Your task to perform on an android device: add a contact in the contacts app Image 0: 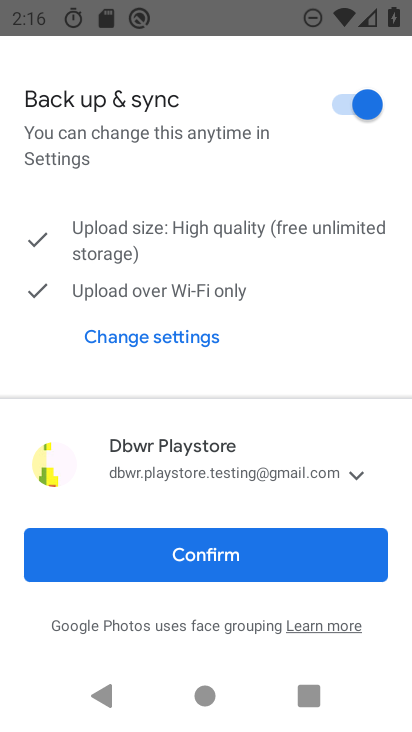
Step 0: press home button
Your task to perform on an android device: add a contact in the contacts app Image 1: 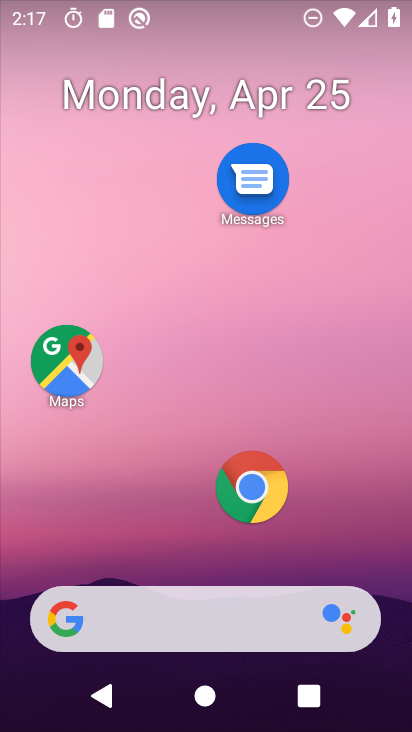
Step 1: drag from (205, 651) to (277, 60)
Your task to perform on an android device: add a contact in the contacts app Image 2: 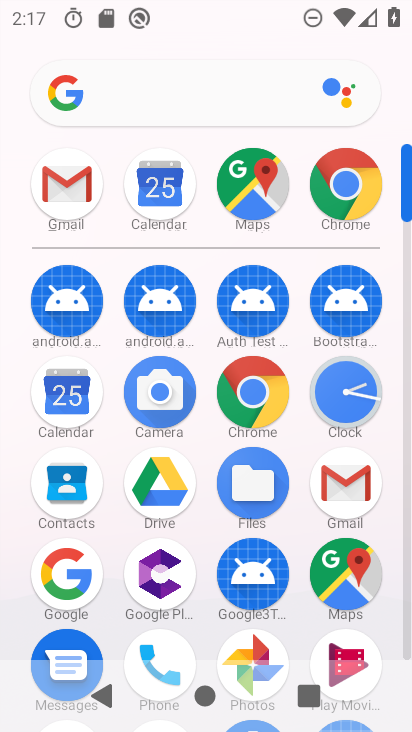
Step 2: click (67, 488)
Your task to perform on an android device: add a contact in the contacts app Image 3: 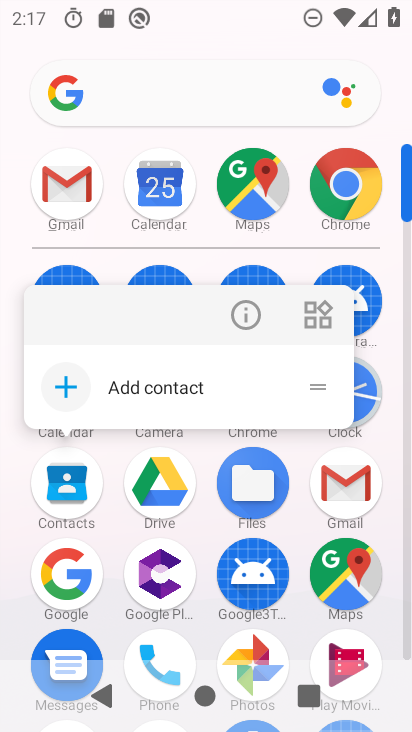
Step 3: click (61, 488)
Your task to perform on an android device: add a contact in the contacts app Image 4: 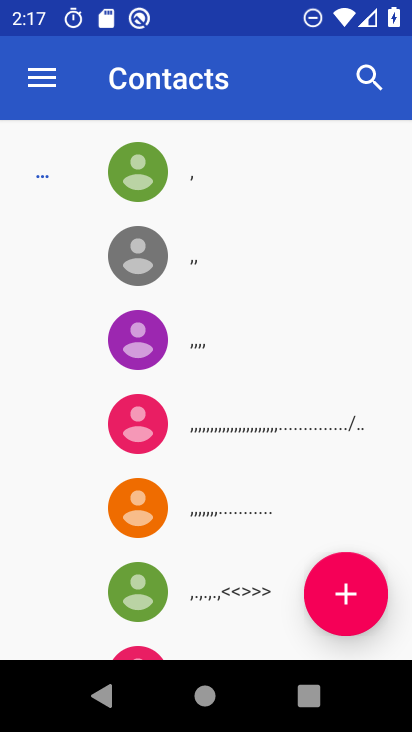
Step 4: click (370, 609)
Your task to perform on an android device: add a contact in the contacts app Image 5: 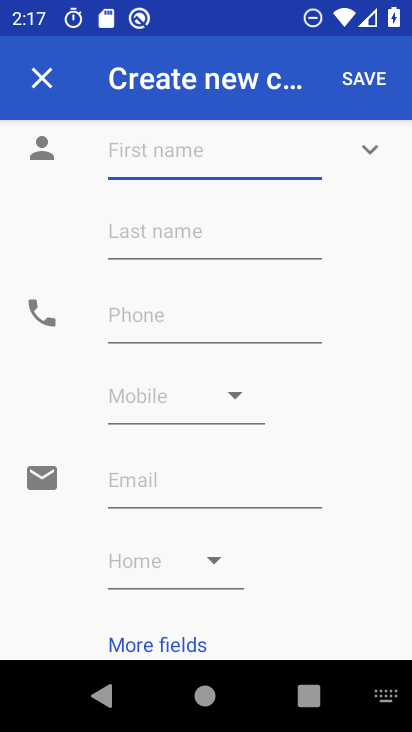
Step 5: type "ssfsdgsdds"
Your task to perform on an android device: add a contact in the contacts app Image 6: 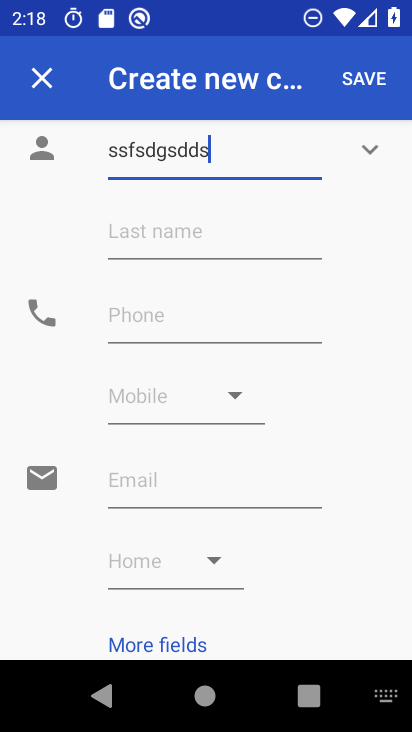
Step 6: click (156, 306)
Your task to perform on an android device: add a contact in the contacts app Image 7: 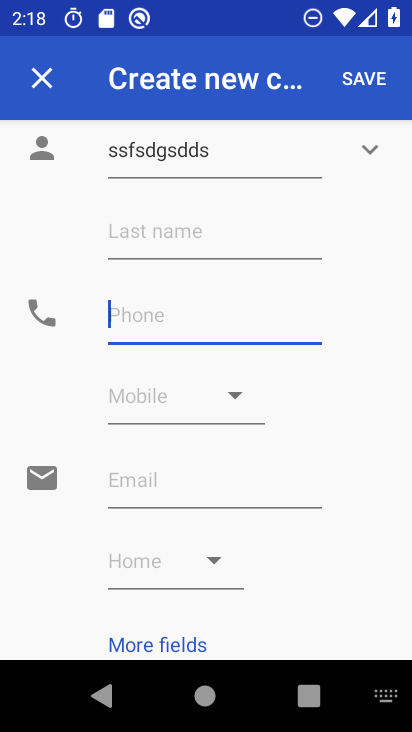
Step 7: type "785568675576"
Your task to perform on an android device: add a contact in the contacts app Image 8: 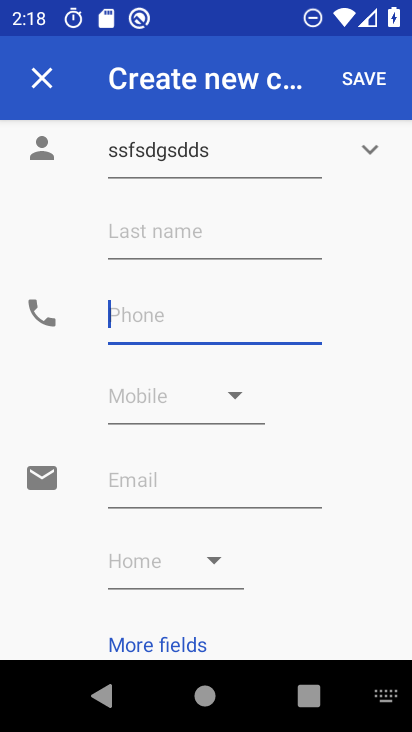
Step 8: click (379, 82)
Your task to perform on an android device: add a contact in the contacts app Image 9: 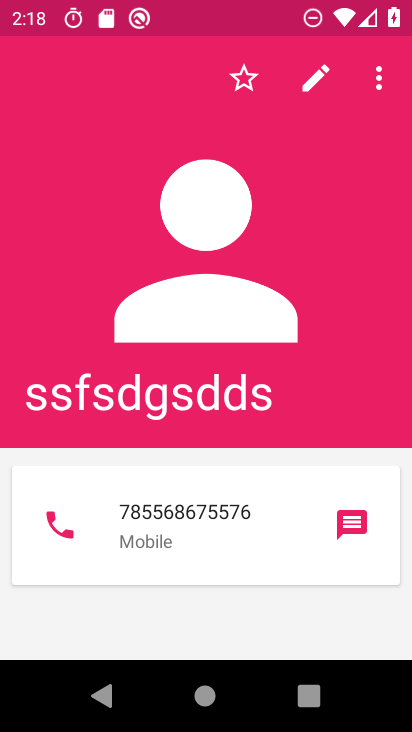
Step 9: task complete